Your task to perform on an android device: Open the phone app and click the voicemail tab. Image 0: 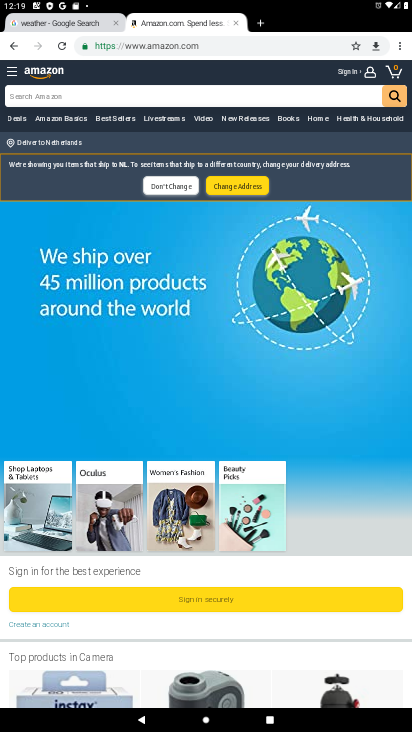
Step 0: press home button
Your task to perform on an android device: Open the phone app and click the voicemail tab. Image 1: 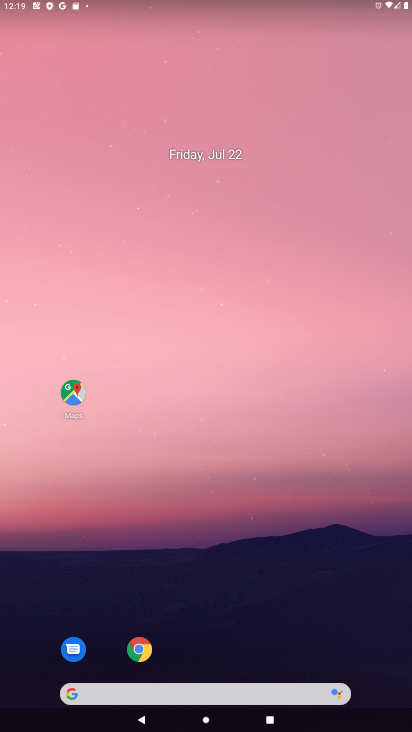
Step 1: drag from (248, 605) to (209, 122)
Your task to perform on an android device: Open the phone app and click the voicemail tab. Image 2: 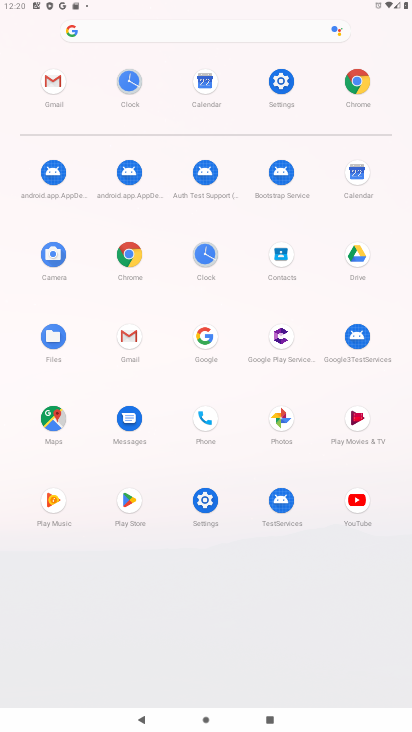
Step 2: click (203, 414)
Your task to perform on an android device: Open the phone app and click the voicemail tab. Image 3: 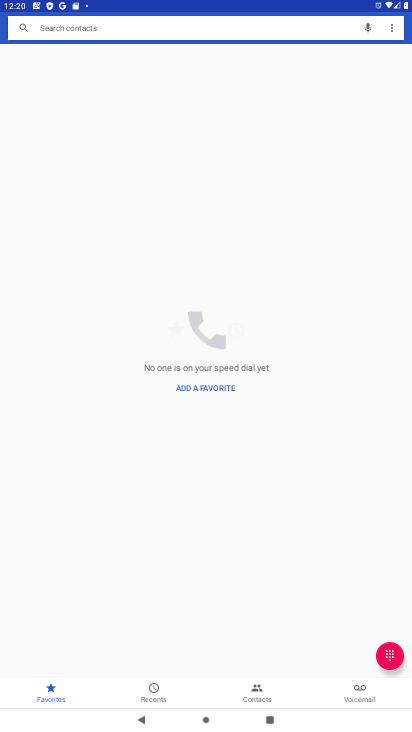
Step 3: click (362, 689)
Your task to perform on an android device: Open the phone app and click the voicemail tab. Image 4: 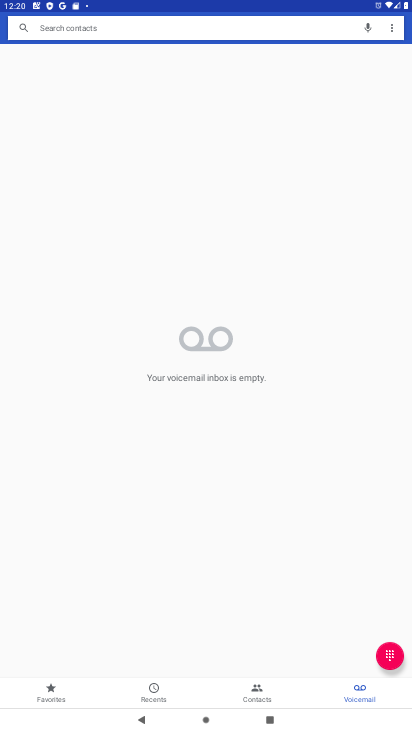
Step 4: task complete